Your task to perform on an android device: What's the news in Singapore? Image 0: 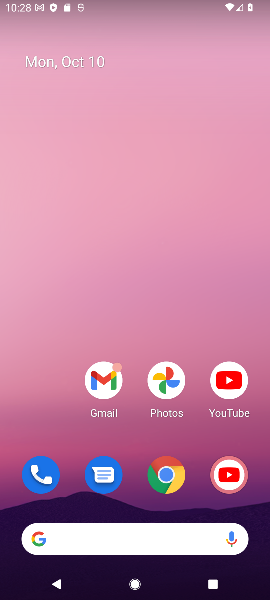
Step 0: click (176, 468)
Your task to perform on an android device: What's the news in Singapore? Image 1: 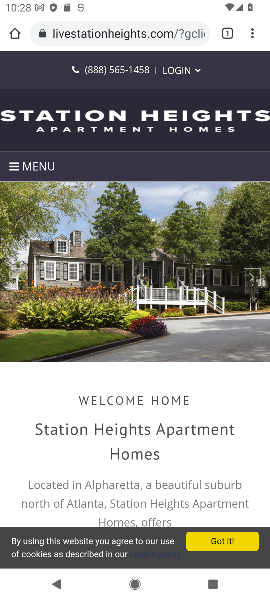
Step 1: click (135, 40)
Your task to perform on an android device: What's the news in Singapore? Image 2: 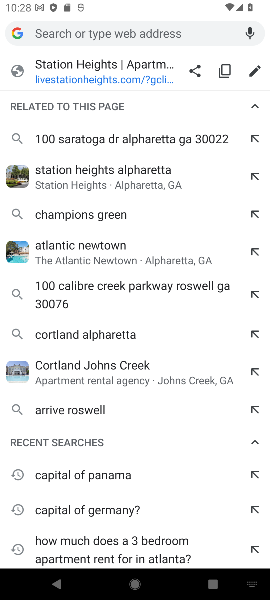
Step 2: type "What's the news in Singapore?"
Your task to perform on an android device: What's the news in Singapore? Image 3: 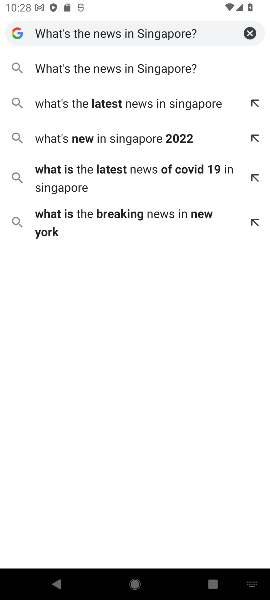
Step 3: click (150, 65)
Your task to perform on an android device: What's the news in Singapore? Image 4: 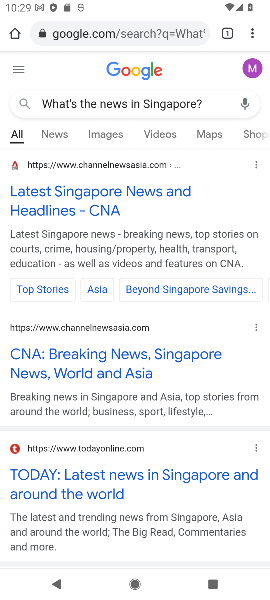
Step 4: click (67, 133)
Your task to perform on an android device: What's the news in Singapore? Image 5: 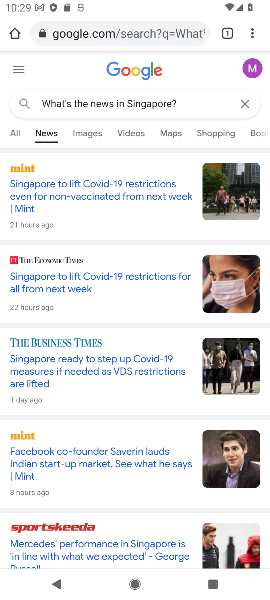
Step 5: task complete